Your task to perform on an android device: Open sound settings Image 0: 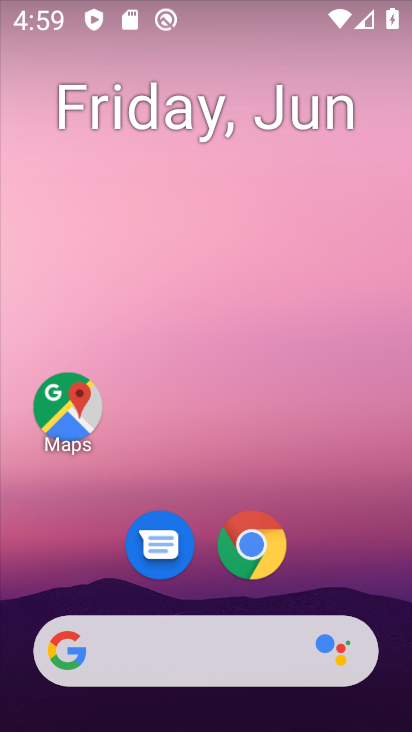
Step 0: drag from (188, 572) to (235, 254)
Your task to perform on an android device: Open sound settings Image 1: 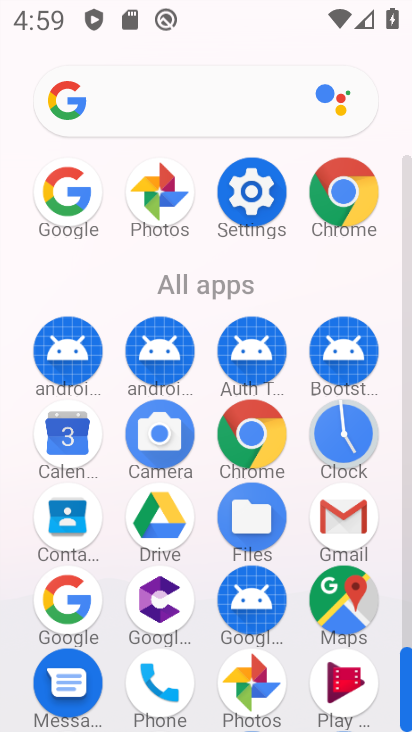
Step 1: click (262, 192)
Your task to perform on an android device: Open sound settings Image 2: 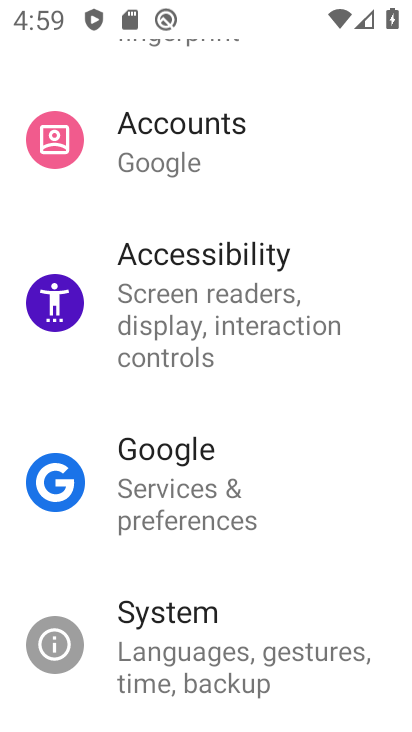
Step 2: drag from (206, 668) to (249, 347)
Your task to perform on an android device: Open sound settings Image 3: 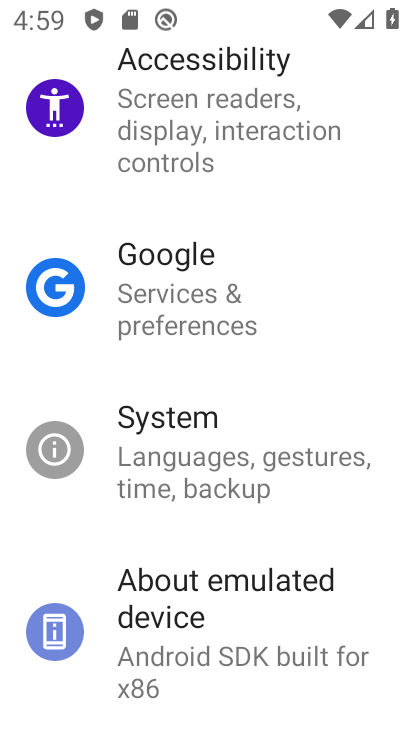
Step 3: drag from (266, 187) to (311, 511)
Your task to perform on an android device: Open sound settings Image 4: 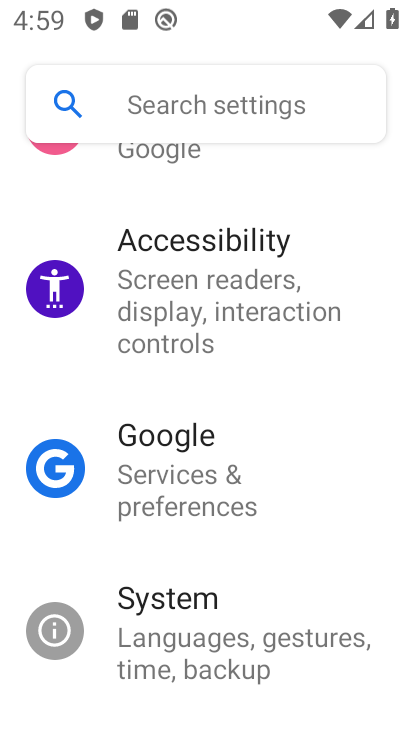
Step 4: drag from (201, 172) to (244, 551)
Your task to perform on an android device: Open sound settings Image 5: 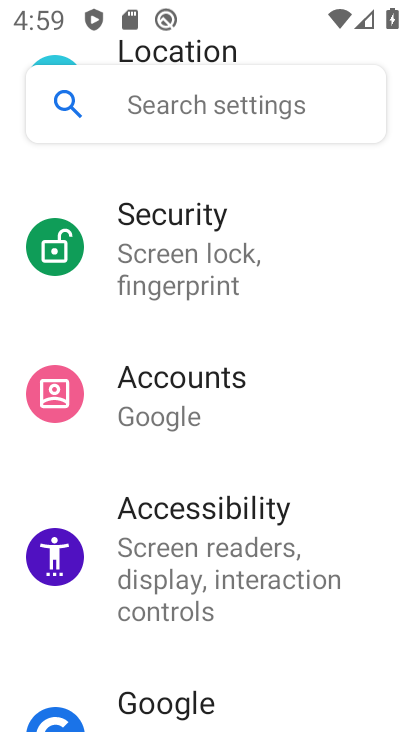
Step 5: drag from (180, 226) to (218, 609)
Your task to perform on an android device: Open sound settings Image 6: 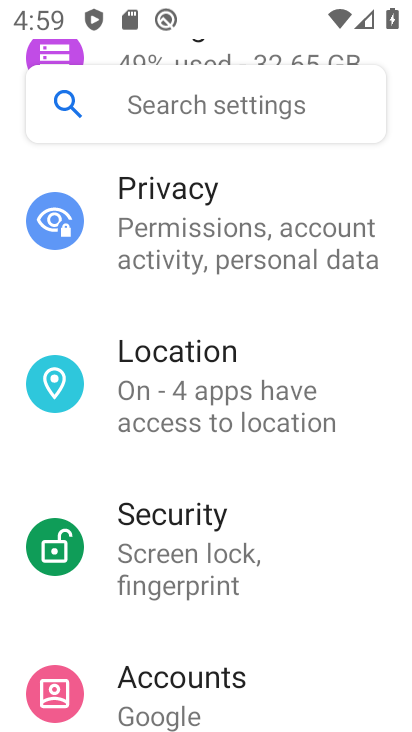
Step 6: drag from (250, 203) to (257, 603)
Your task to perform on an android device: Open sound settings Image 7: 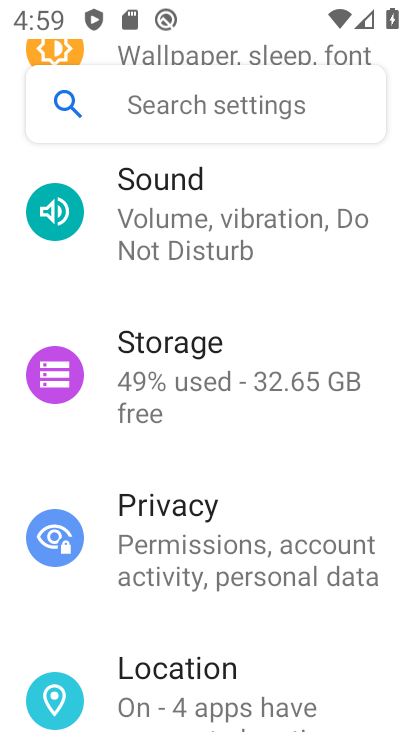
Step 7: click (186, 241)
Your task to perform on an android device: Open sound settings Image 8: 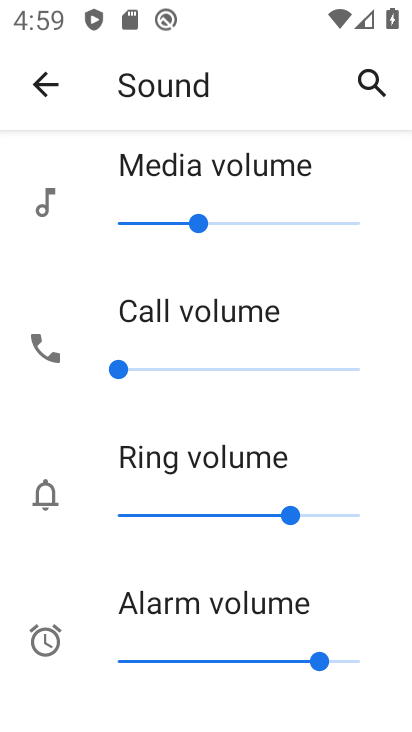
Step 8: task complete